Your task to perform on an android device: toggle airplane mode Image 0: 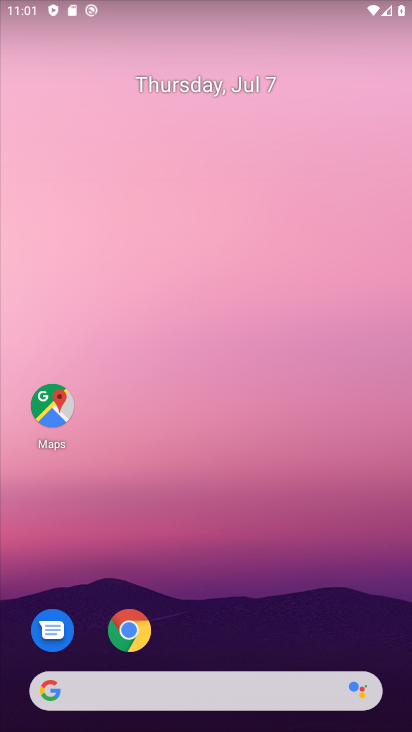
Step 0: drag from (377, 615) to (317, 128)
Your task to perform on an android device: toggle airplane mode Image 1: 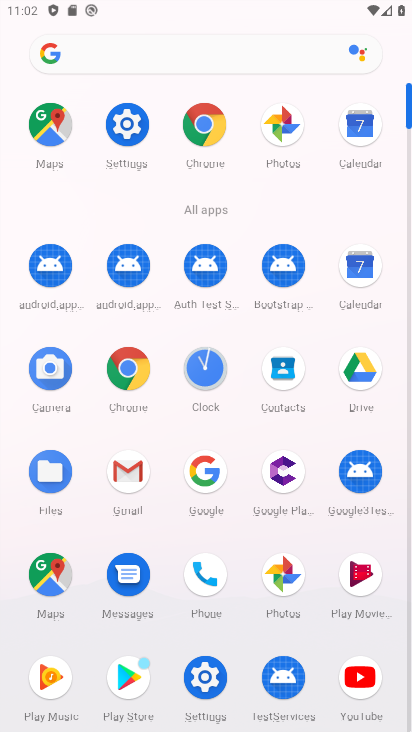
Step 1: click (204, 681)
Your task to perform on an android device: toggle airplane mode Image 2: 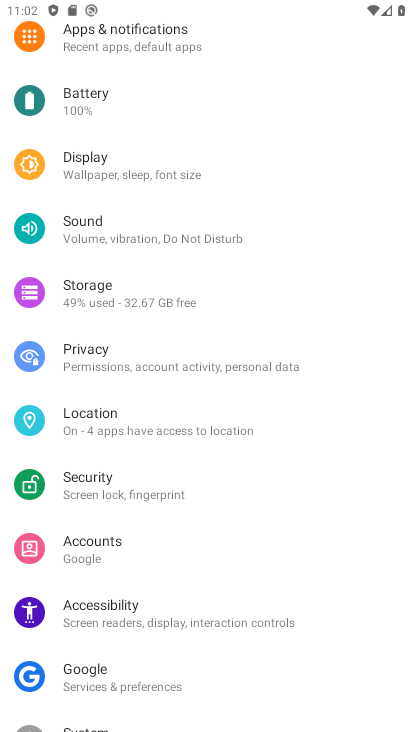
Step 2: drag from (278, 76) to (288, 265)
Your task to perform on an android device: toggle airplane mode Image 3: 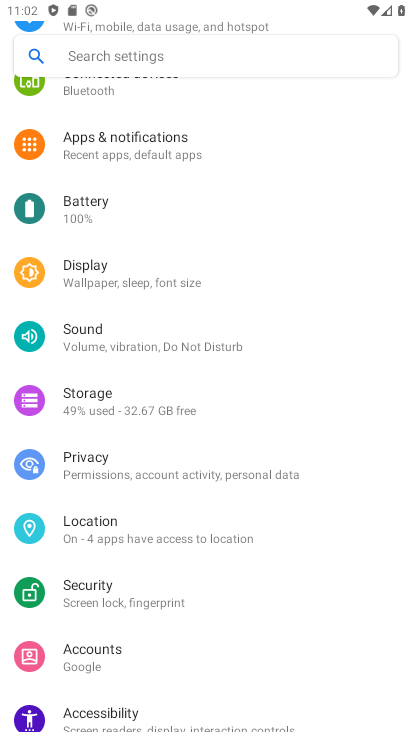
Step 3: drag from (313, 210) to (294, 512)
Your task to perform on an android device: toggle airplane mode Image 4: 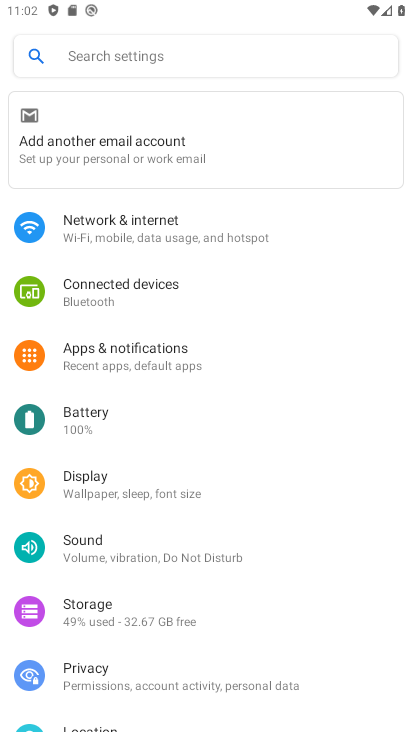
Step 4: click (124, 230)
Your task to perform on an android device: toggle airplane mode Image 5: 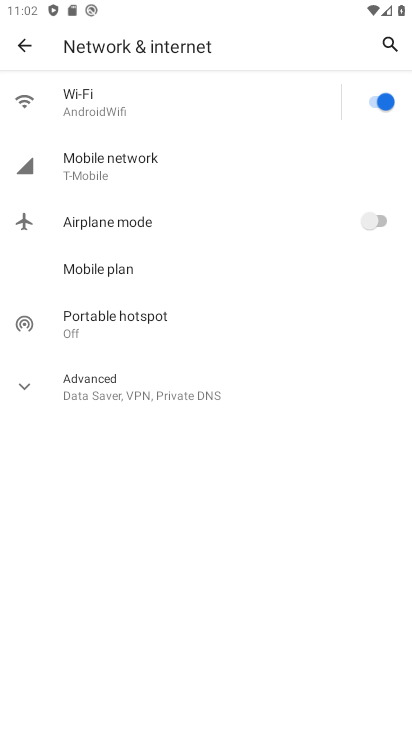
Step 5: click (114, 221)
Your task to perform on an android device: toggle airplane mode Image 6: 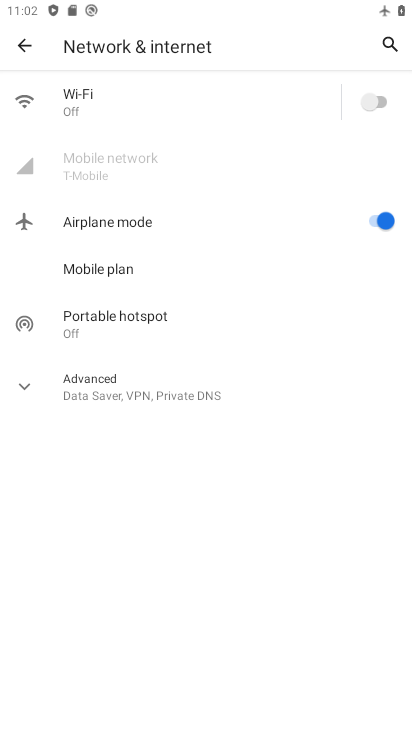
Step 6: task complete